Your task to perform on an android device: find which apps use the phone's location Image 0: 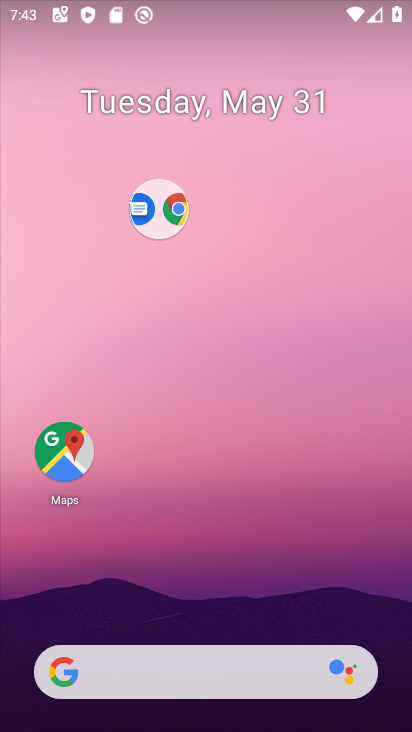
Step 0: drag from (223, 574) to (196, 222)
Your task to perform on an android device: find which apps use the phone's location Image 1: 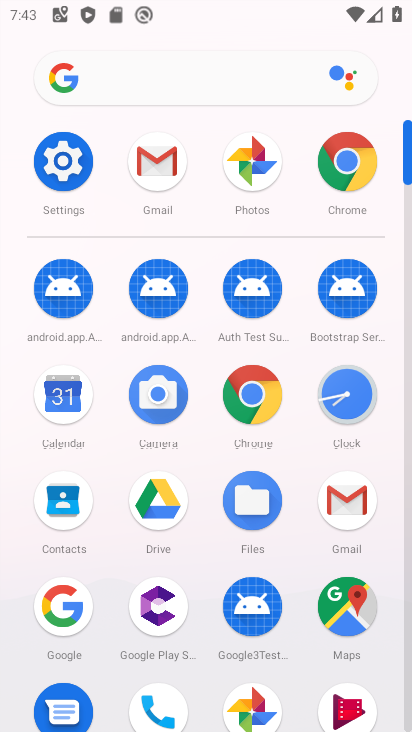
Step 1: click (56, 156)
Your task to perform on an android device: find which apps use the phone's location Image 2: 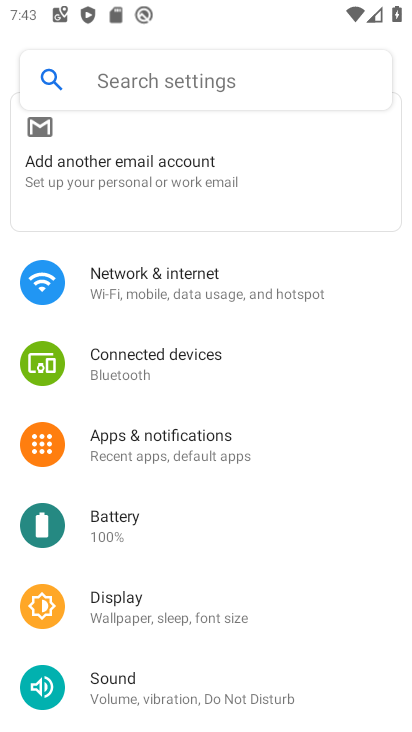
Step 2: drag from (191, 644) to (107, 353)
Your task to perform on an android device: find which apps use the phone's location Image 3: 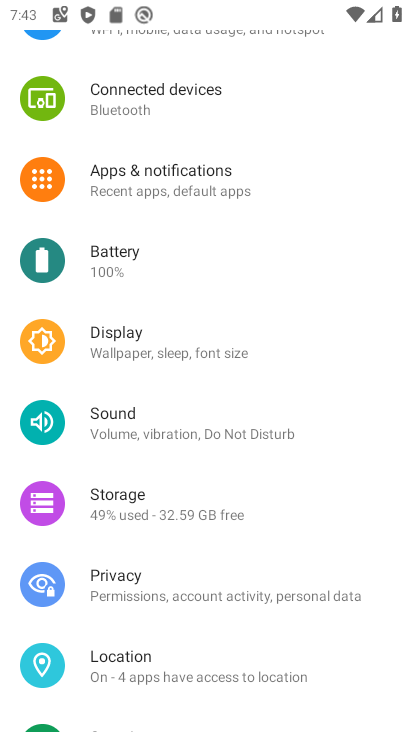
Step 3: click (126, 683)
Your task to perform on an android device: find which apps use the phone's location Image 4: 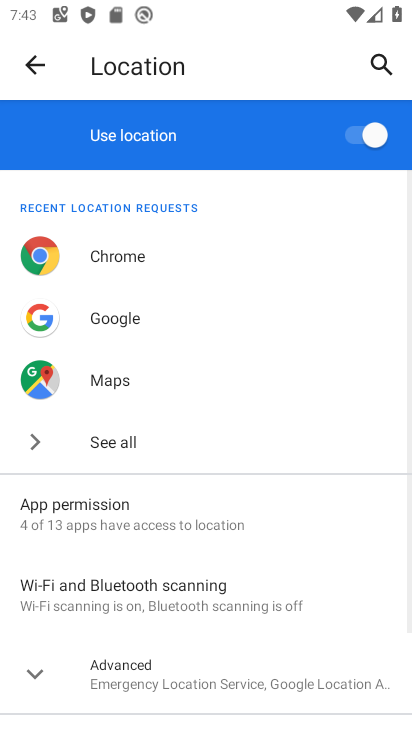
Step 4: click (160, 528)
Your task to perform on an android device: find which apps use the phone's location Image 5: 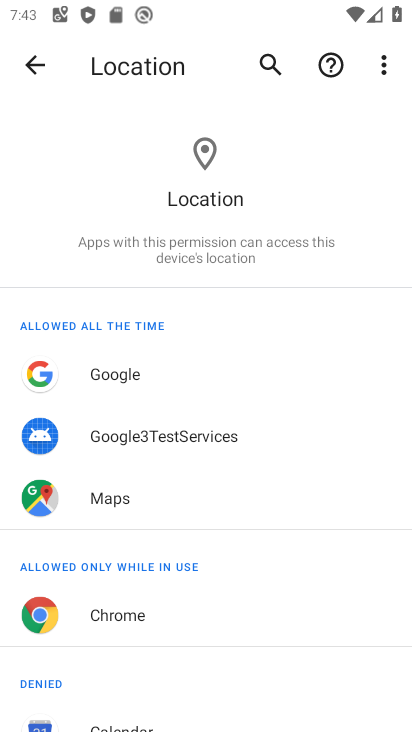
Step 5: task complete